Your task to perform on an android device: Open Yahoo.com Image 0: 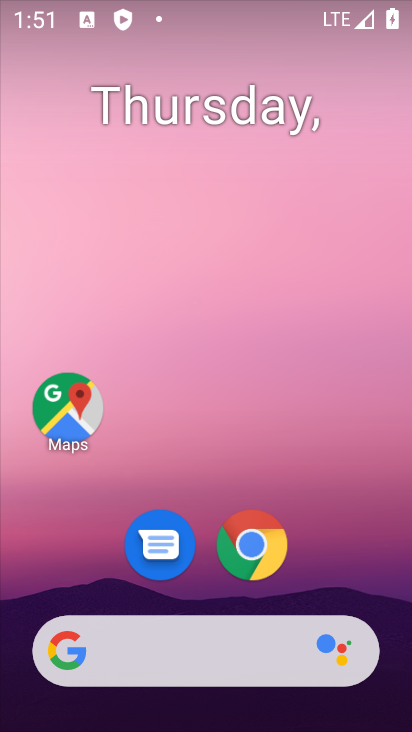
Step 0: drag from (277, 582) to (249, 0)
Your task to perform on an android device: Open Yahoo.com Image 1: 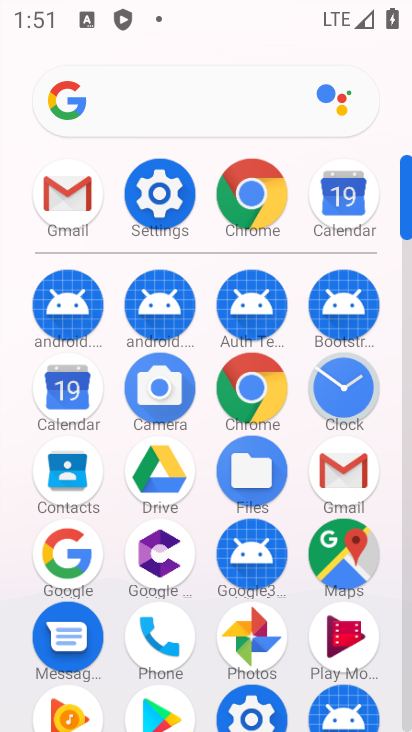
Step 1: click (263, 396)
Your task to perform on an android device: Open Yahoo.com Image 2: 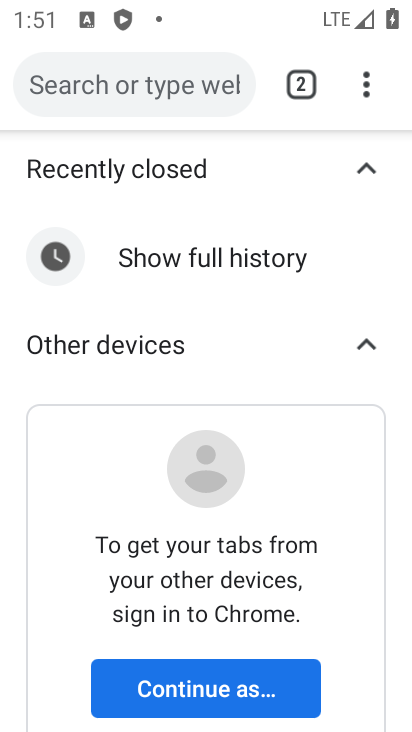
Step 2: click (176, 93)
Your task to perform on an android device: Open Yahoo.com Image 3: 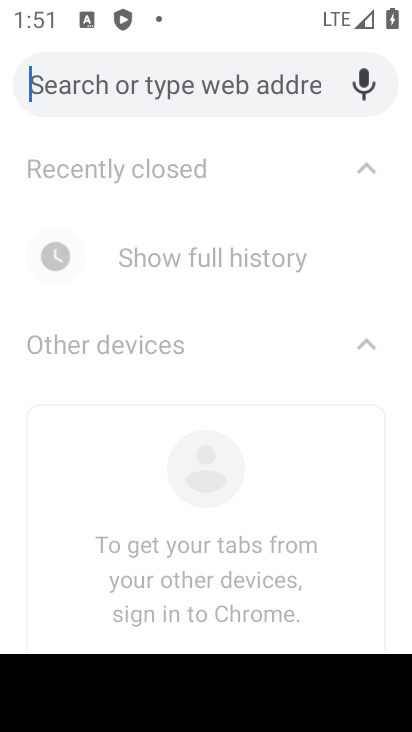
Step 3: type "yahoo.com"
Your task to perform on an android device: Open Yahoo.com Image 4: 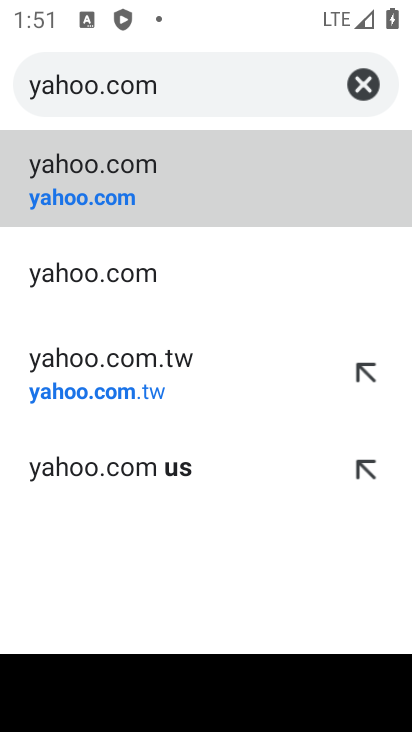
Step 4: click (141, 173)
Your task to perform on an android device: Open Yahoo.com Image 5: 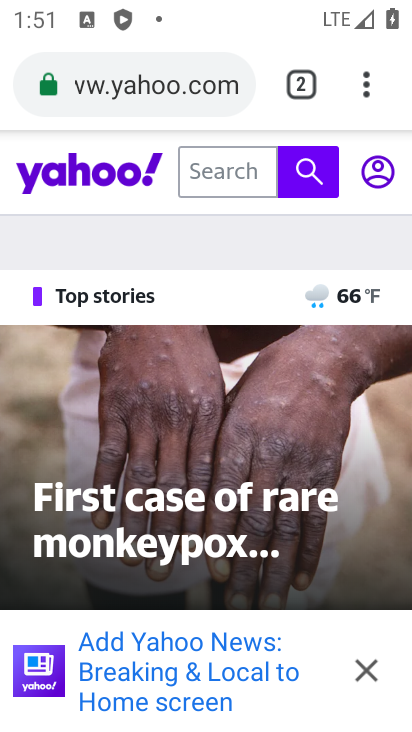
Step 5: task complete